Your task to perform on an android device: see sites visited before in the chrome app Image 0: 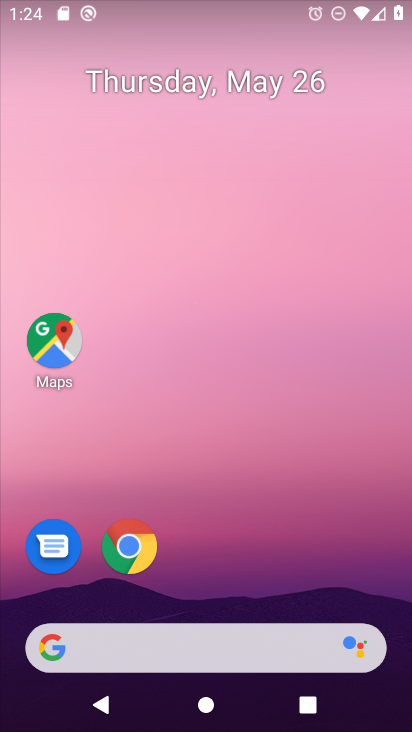
Step 0: drag from (224, 609) to (236, 165)
Your task to perform on an android device: see sites visited before in the chrome app Image 1: 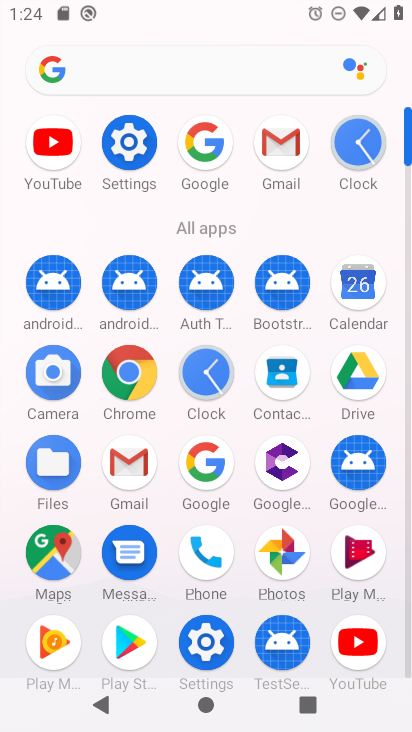
Step 1: click (129, 372)
Your task to perform on an android device: see sites visited before in the chrome app Image 2: 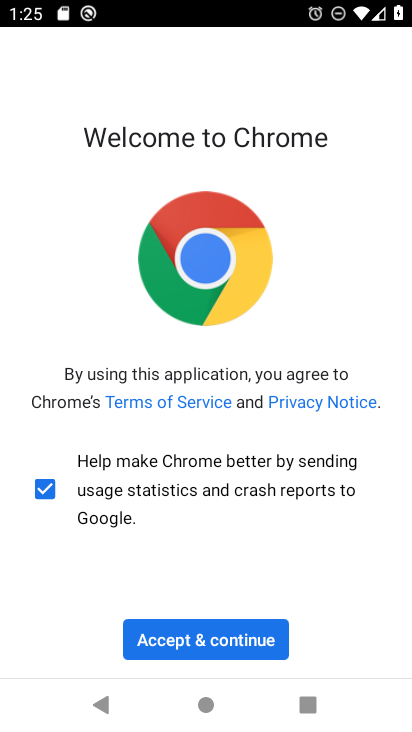
Step 2: click (241, 640)
Your task to perform on an android device: see sites visited before in the chrome app Image 3: 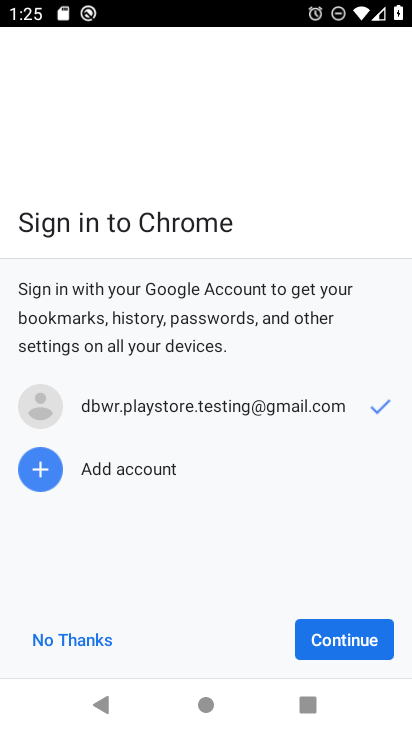
Step 3: click (349, 640)
Your task to perform on an android device: see sites visited before in the chrome app Image 4: 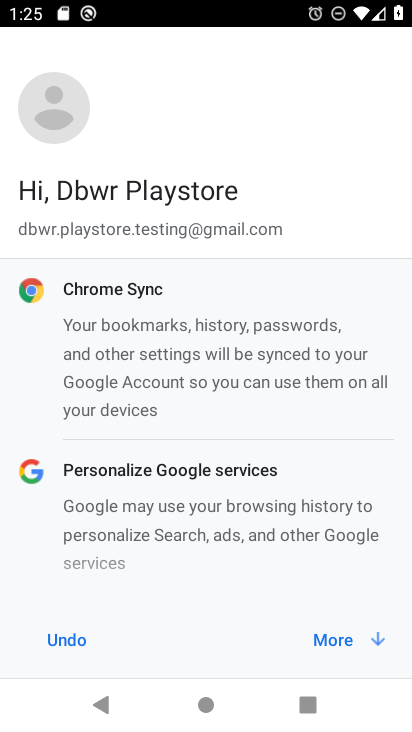
Step 4: click (349, 640)
Your task to perform on an android device: see sites visited before in the chrome app Image 5: 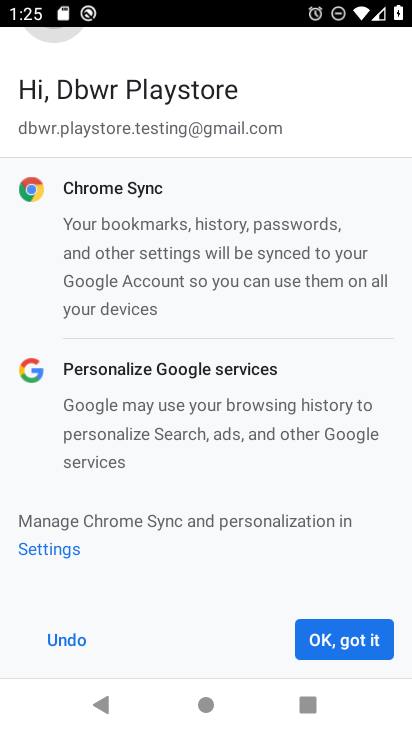
Step 5: click (349, 640)
Your task to perform on an android device: see sites visited before in the chrome app Image 6: 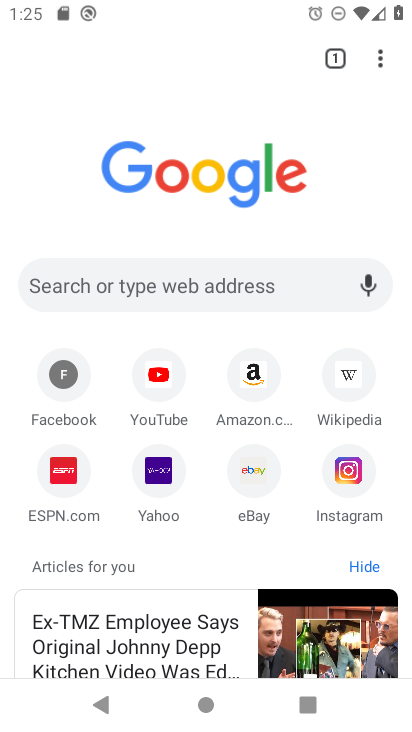
Step 6: click (376, 60)
Your task to perform on an android device: see sites visited before in the chrome app Image 7: 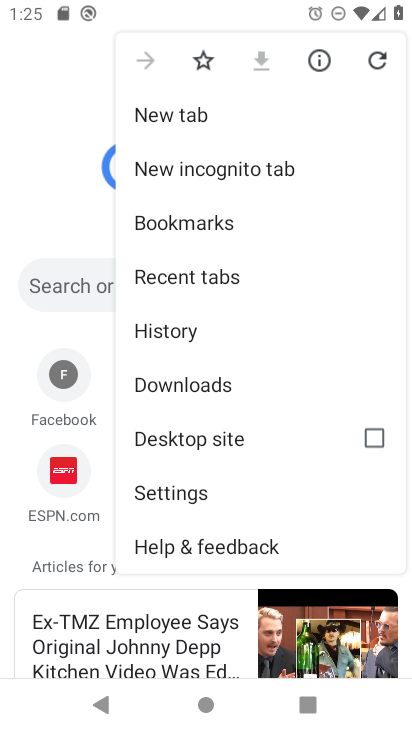
Step 7: click (70, 159)
Your task to perform on an android device: see sites visited before in the chrome app Image 8: 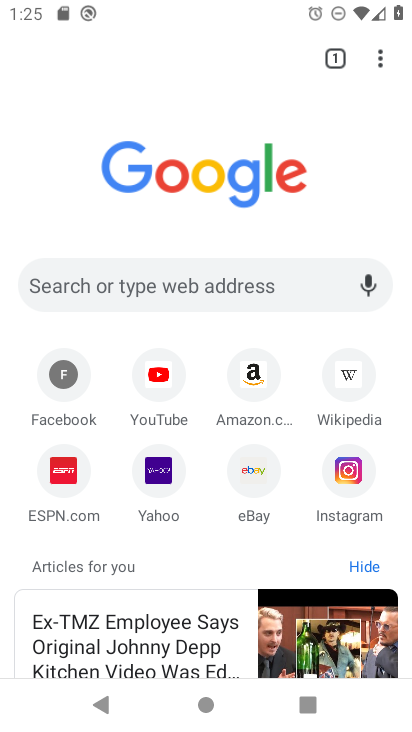
Step 8: task complete